Your task to perform on an android device: Clear all items from cart on ebay.com. Search for razer blade on ebay.com, select the first entry, add it to the cart, then select checkout. Image 0: 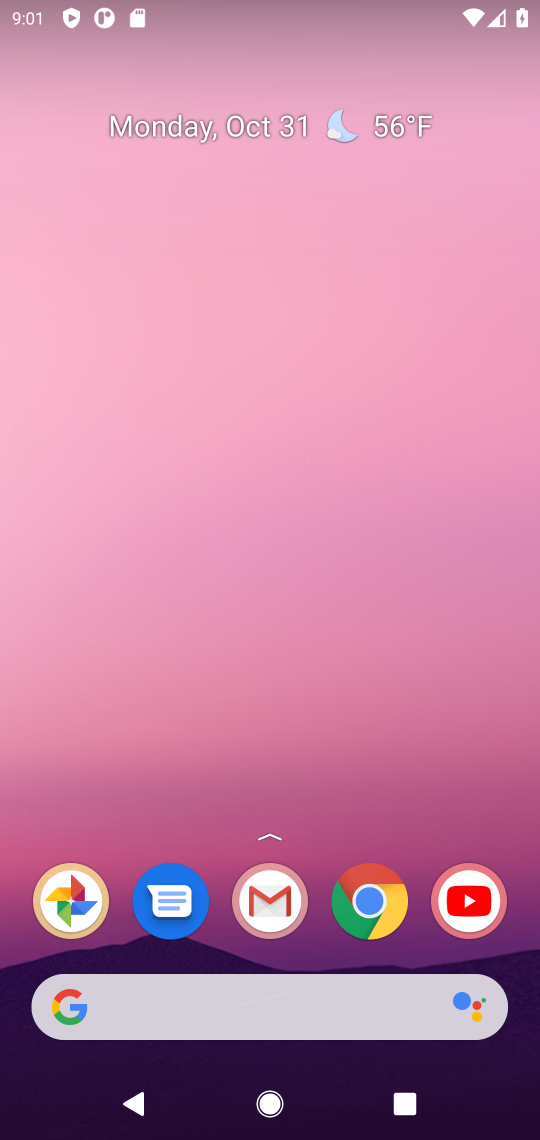
Step 0: drag from (140, 962) to (197, 340)
Your task to perform on an android device: Clear all items from cart on ebay.com. Search for razer blade on ebay.com, select the first entry, add it to the cart, then select checkout. Image 1: 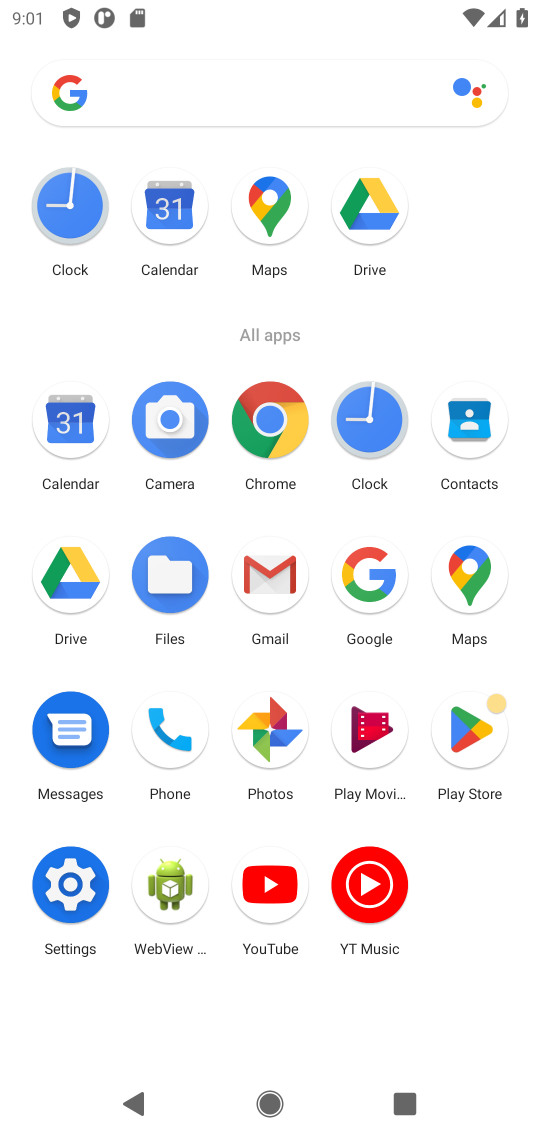
Step 1: click (366, 576)
Your task to perform on an android device: Clear all items from cart on ebay.com. Search for razer blade on ebay.com, select the first entry, add it to the cart, then select checkout. Image 2: 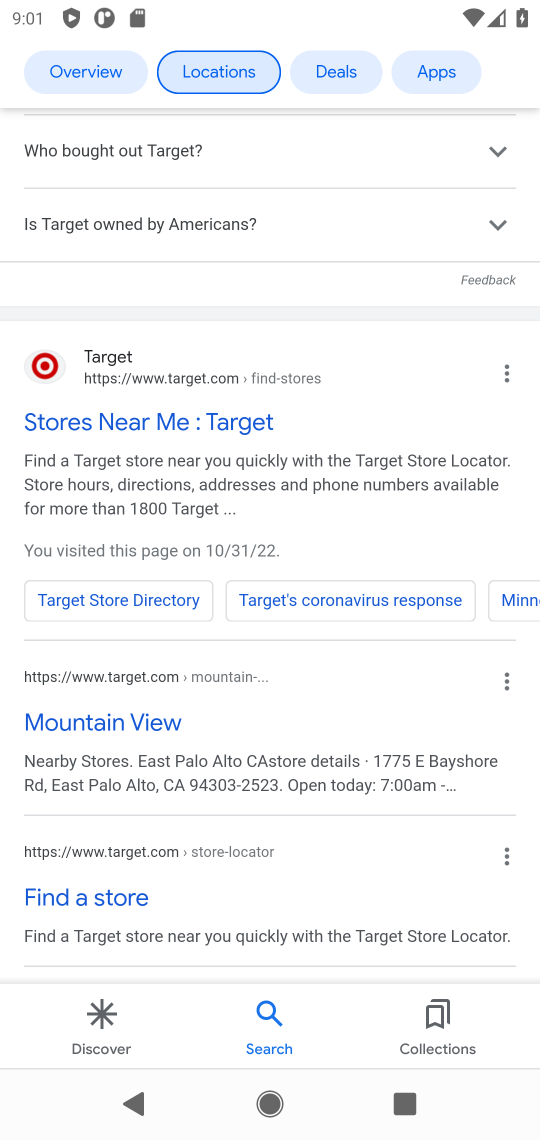
Step 2: drag from (207, 113) to (171, 964)
Your task to perform on an android device: Clear all items from cart on ebay.com. Search for razer blade on ebay.com, select the first entry, add it to the cart, then select checkout. Image 3: 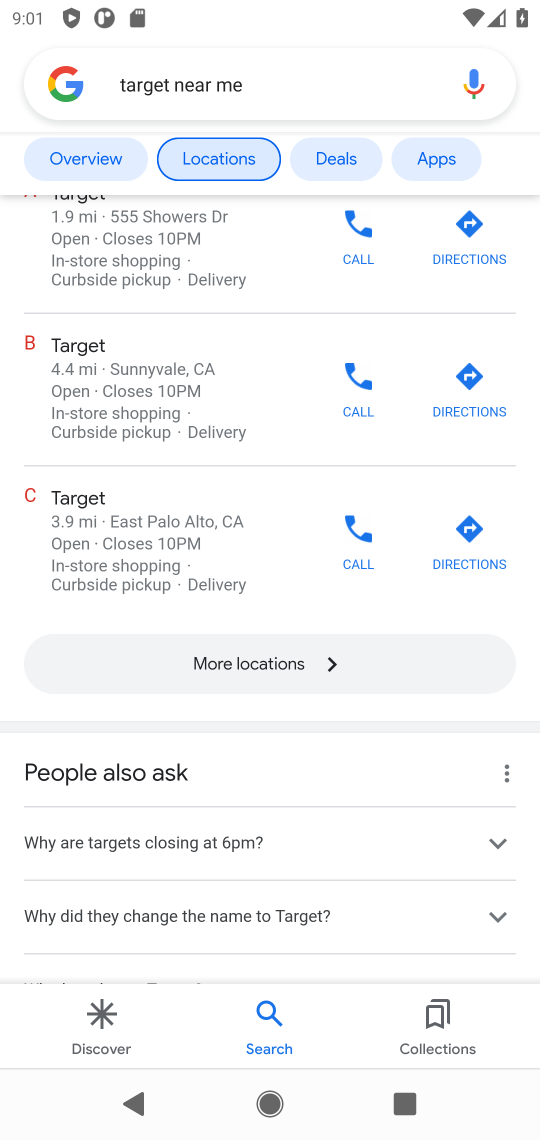
Step 3: click (266, 76)
Your task to perform on an android device: Clear all items from cart on ebay.com. Search for razer blade on ebay.com, select the first entry, add it to the cart, then select checkout. Image 4: 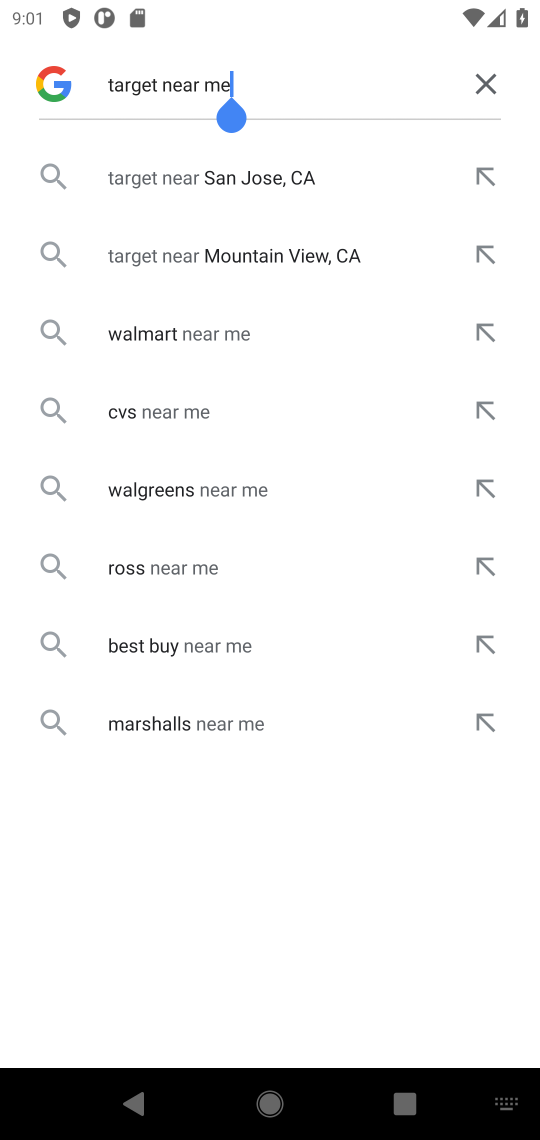
Step 4: click (497, 86)
Your task to perform on an android device: Clear all items from cart on ebay.com. Search for razer blade on ebay.com, select the first entry, add it to the cart, then select checkout. Image 5: 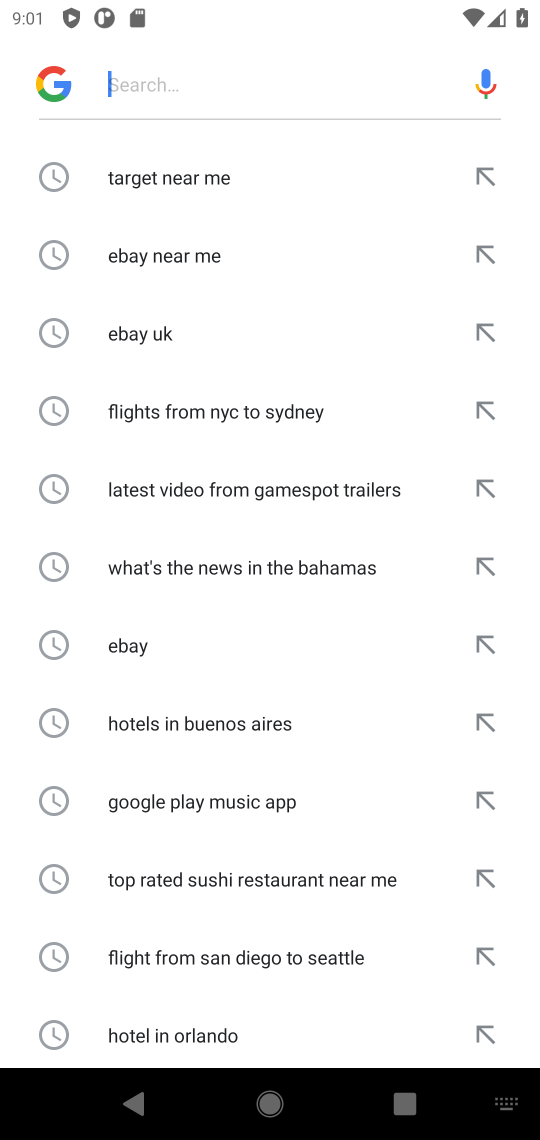
Step 5: click (183, 259)
Your task to perform on an android device: Clear all items from cart on ebay.com. Search for razer blade on ebay.com, select the first entry, add it to the cart, then select checkout. Image 6: 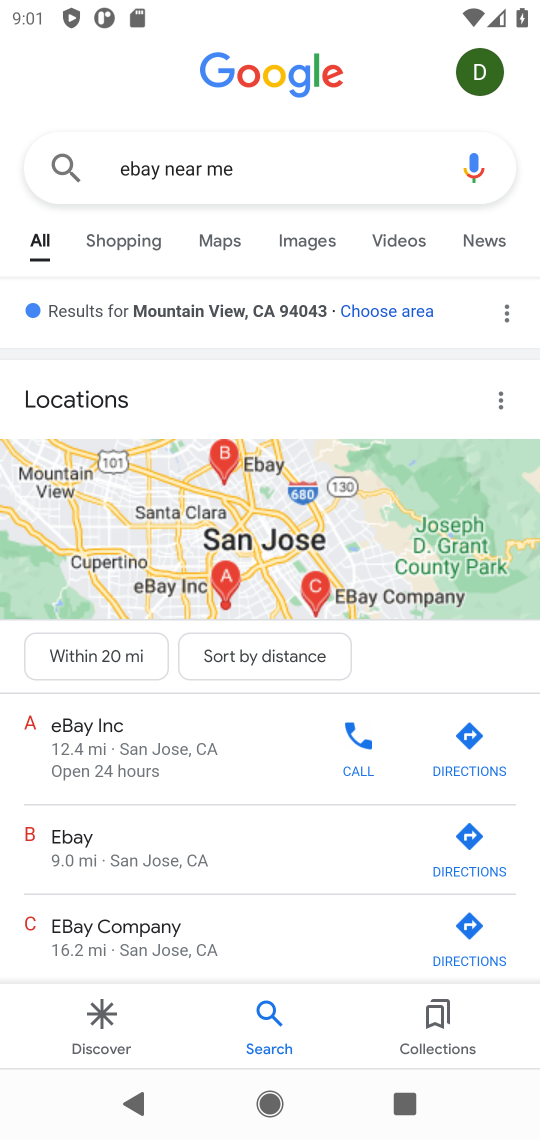
Step 6: drag from (195, 911) to (264, 232)
Your task to perform on an android device: Clear all items from cart on ebay.com. Search for razer blade on ebay.com, select the first entry, add it to the cart, then select checkout. Image 7: 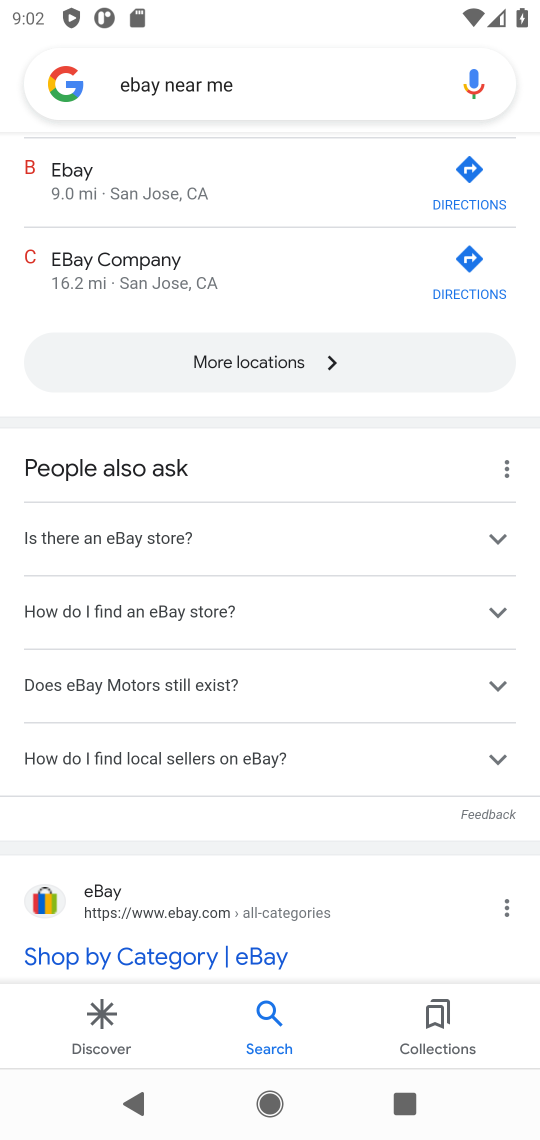
Step 7: click (36, 916)
Your task to perform on an android device: Clear all items from cart on ebay.com. Search for razer blade on ebay.com, select the first entry, add it to the cart, then select checkout. Image 8: 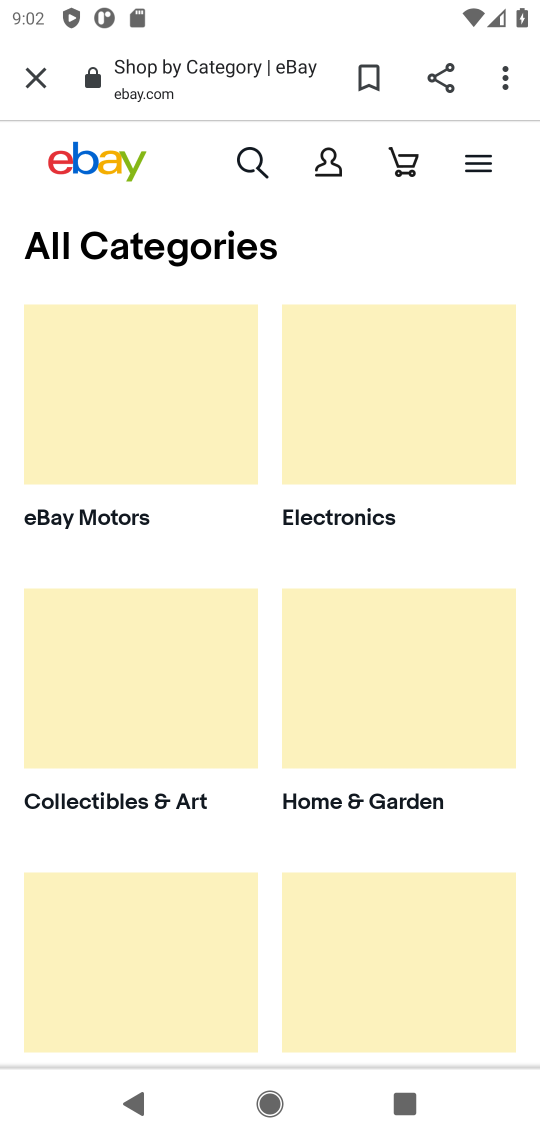
Step 8: click (244, 151)
Your task to perform on an android device: Clear all items from cart on ebay.com. Search for razer blade on ebay.com, select the first entry, add it to the cart, then select checkout. Image 9: 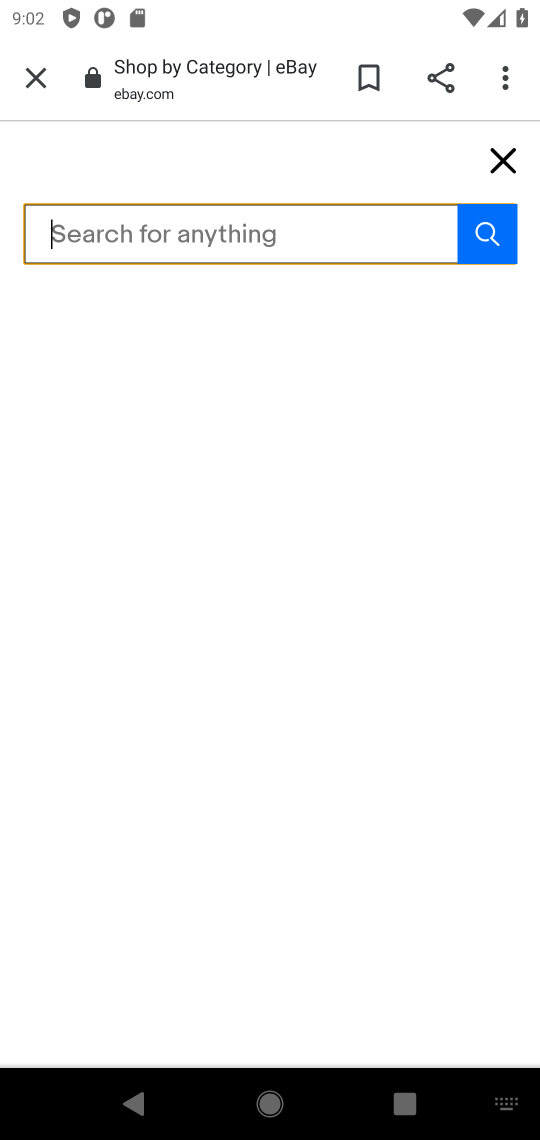
Step 9: click (188, 217)
Your task to perform on an android device: Clear all items from cart on ebay.com. Search for razer blade on ebay.com, select the first entry, add it to the cart, then select checkout. Image 10: 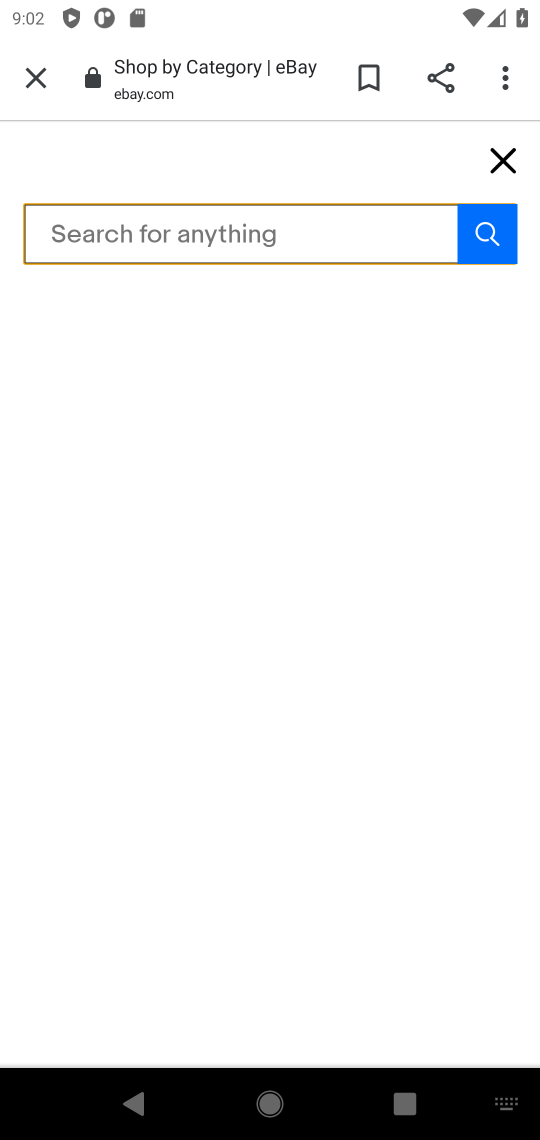
Step 10: type "razer blade "
Your task to perform on an android device: Clear all items from cart on ebay.com. Search for razer blade on ebay.com, select the first entry, add it to the cart, then select checkout. Image 11: 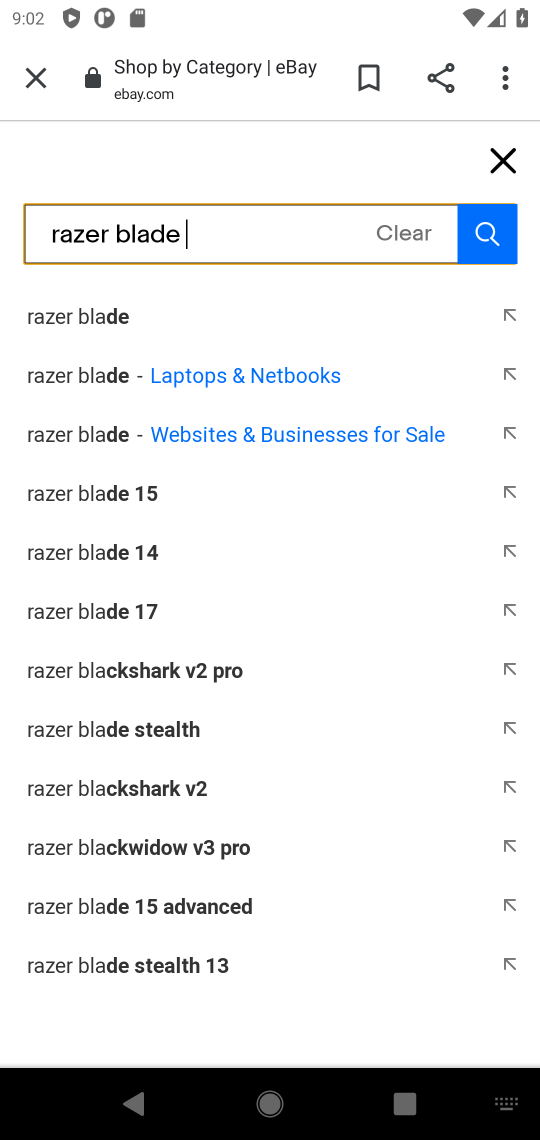
Step 11: click (93, 300)
Your task to perform on an android device: Clear all items from cart on ebay.com. Search for razer blade on ebay.com, select the first entry, add it to the cart, then select checkout. Image 12: 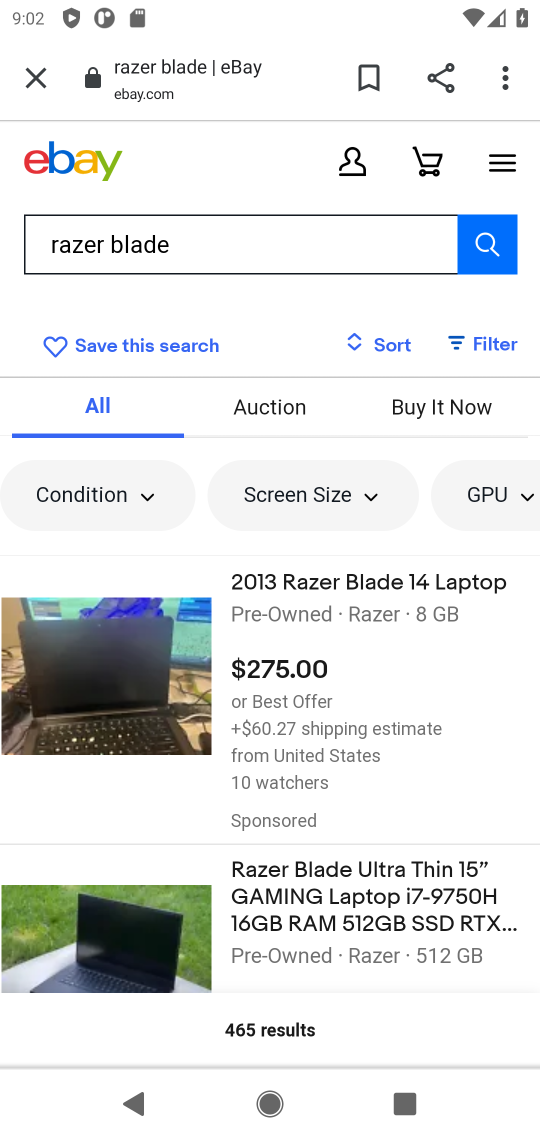
Step 12: click (295, 594)
Your task to perform on an android device: Clear all items from cart on ebay.com. Search for razer blade on ebay.com, select the first entry, add it to the cart, then select checkout. Image 13: 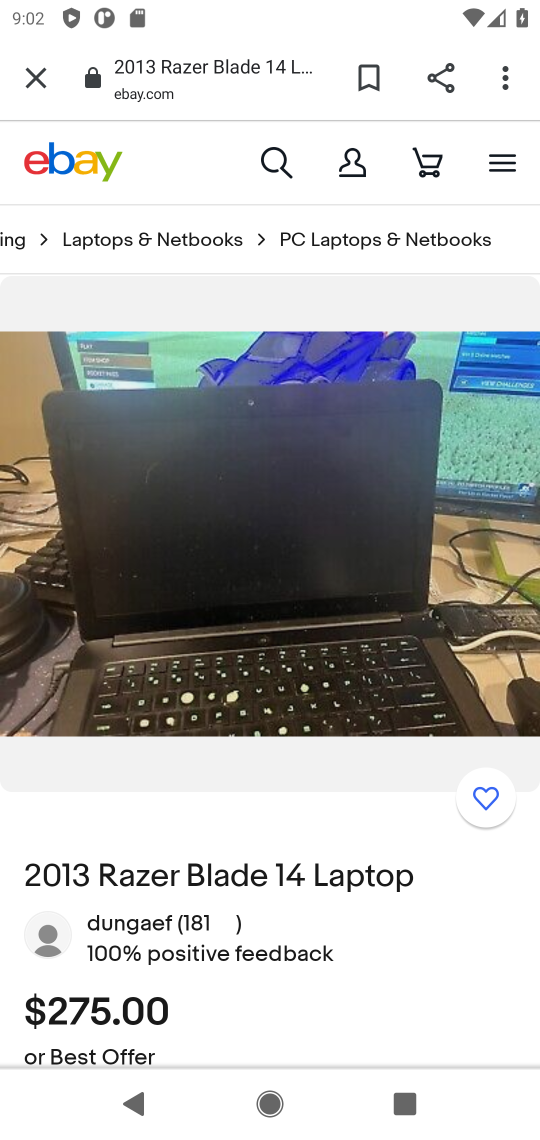
Step 13: drag from (271, 1027) to (331, 290)
Your task to perform on an android device: Clear all items from cart on ebay.com. Search for razer blade on ebay.com, select the first entry, add it to the cart, then select checkout. Image 14: 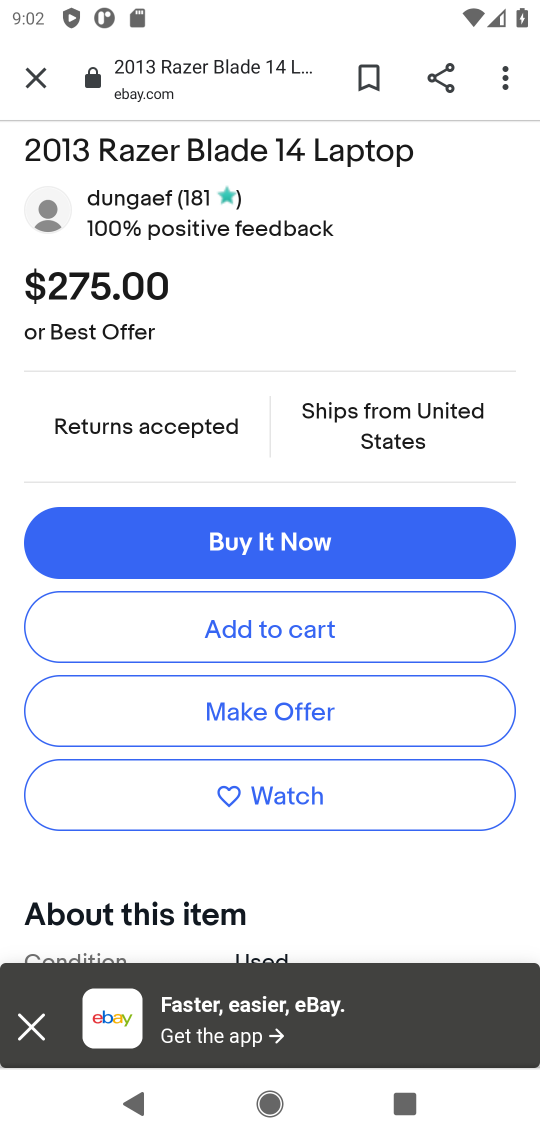
Step 14: click (263, 614)
Your task to perform on an android device: Clear all items from cart on ebay.com. Search for razer blade on ebay.com, select the first entry, add it to the cart, then select checkout. Image 15: 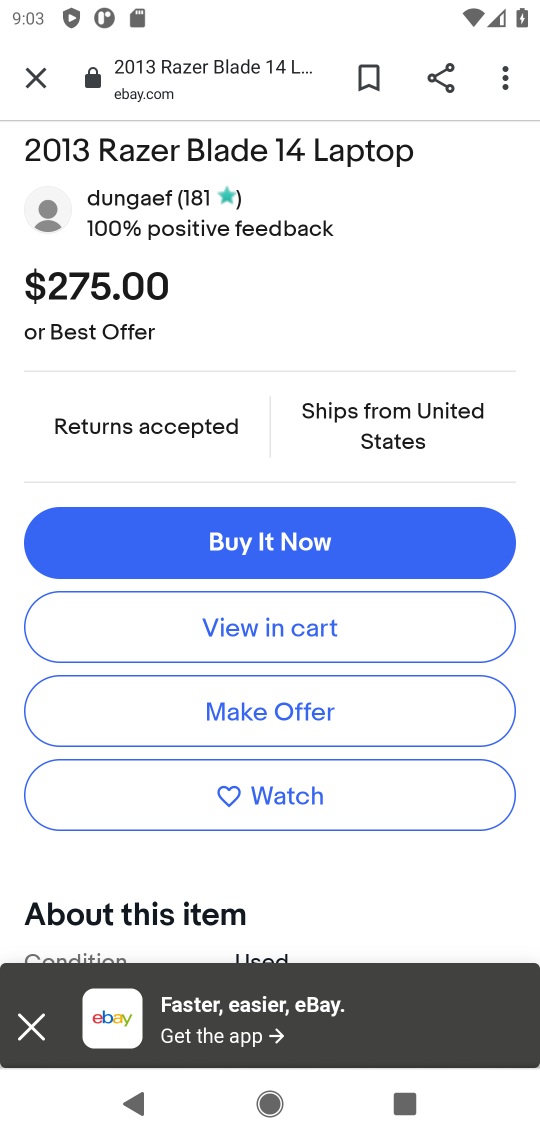
Step 15: task complete